Your task to perform on an android device: toggle pop-ups in chrome Image 0: 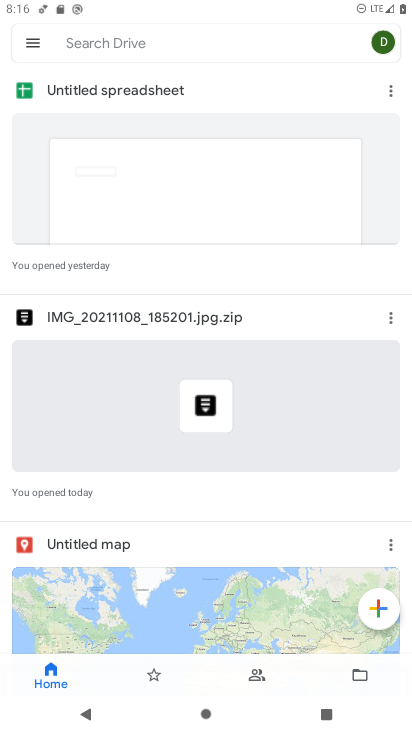
Step 0: press home button
Your task to perform on an android device: toggle pop-ups in chrome Image 1: 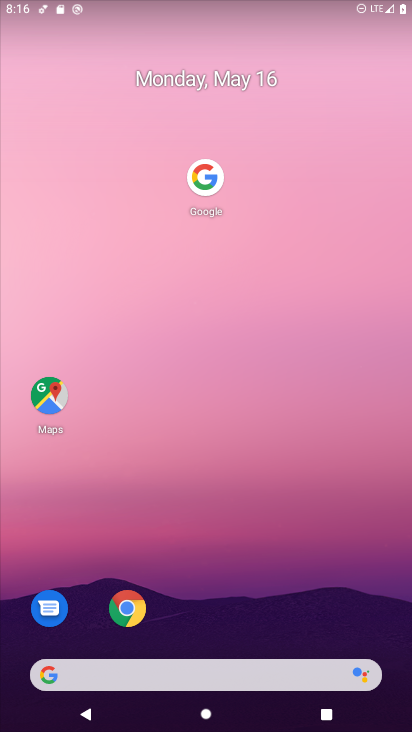
Step 1: click (128, 608)
Your task to perform on an android device: toggle pop-ups in chrome Image 2: 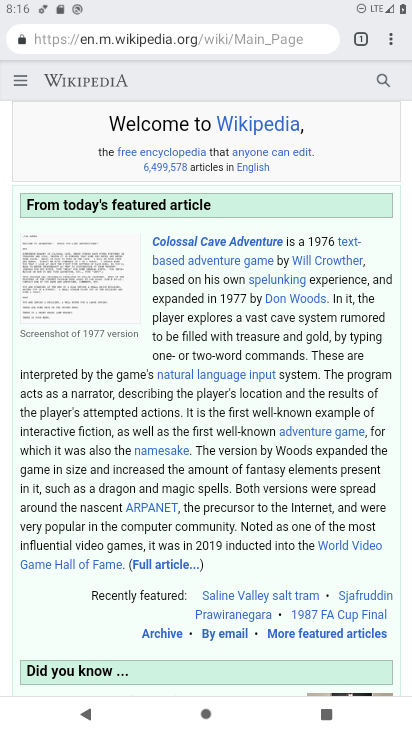
Step 2: click (392, 39)
Your task to perform on an android device: toggle pop-ups in chrome Image 3: 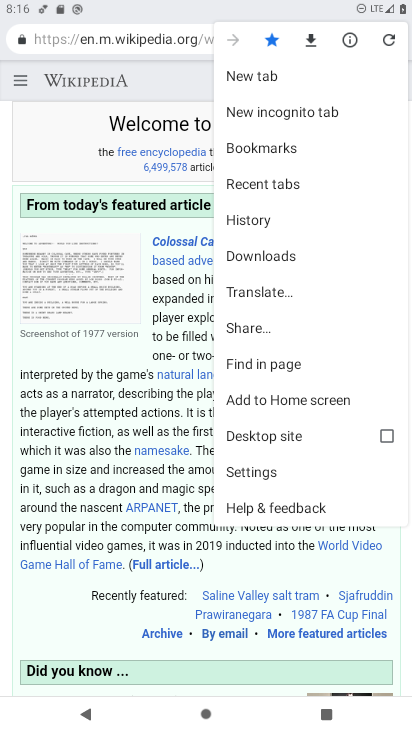
Step 3: click (261, 471)
Your task to perform on an android device: toggle pop-ups in chrome Image 4: 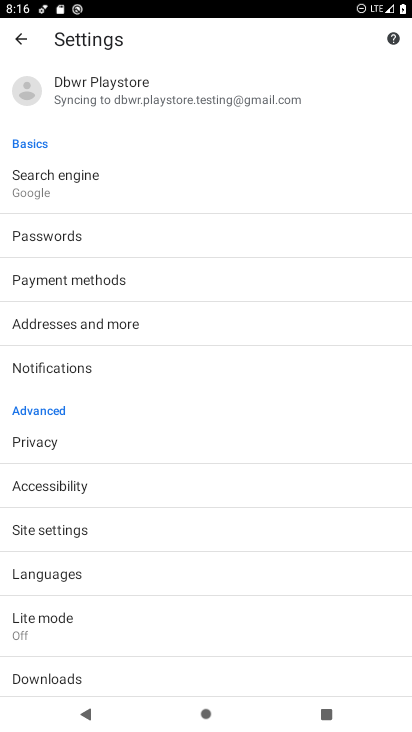
Step 4: click (57, 526)
Your task to perform on an android device: toggle pop-ups in chrome Image 5: 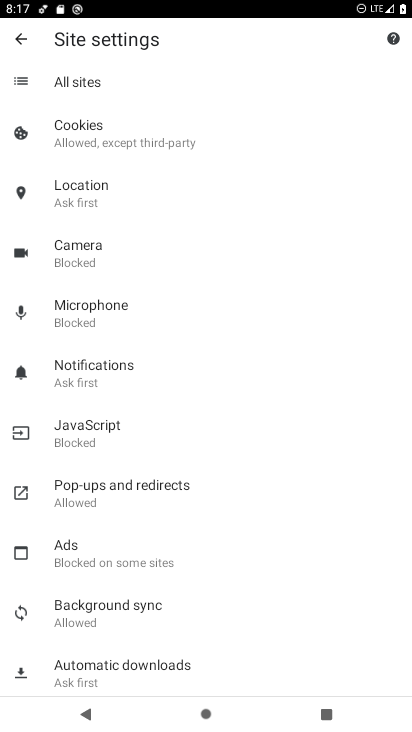
Step 5: click (127, 488)
Your task to perform on an android device: toggle pop-ups in chrome Image 6: 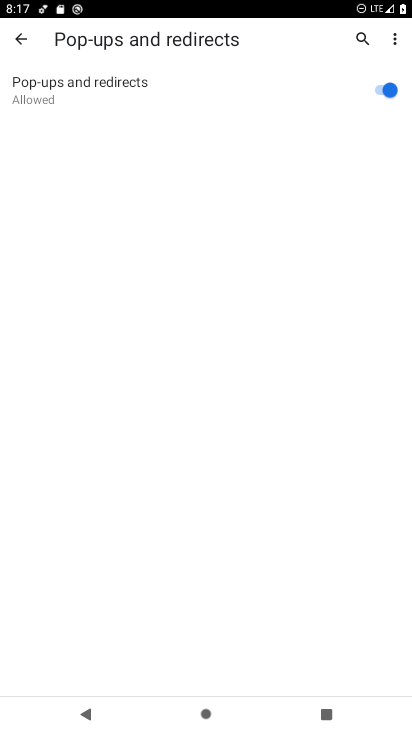
Step 6: click (391, 87)
Your task to perform on an android device: toggle pop-ups in chrome Image 7: 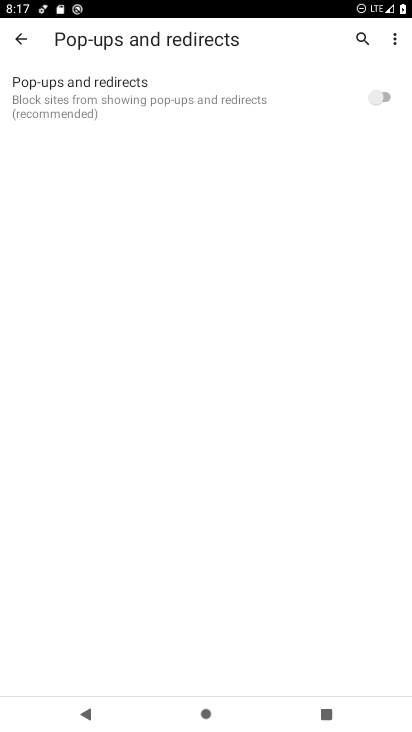
Step 7: task complete